Your task to perform on an android device: Toggle the flashlight Image 0: 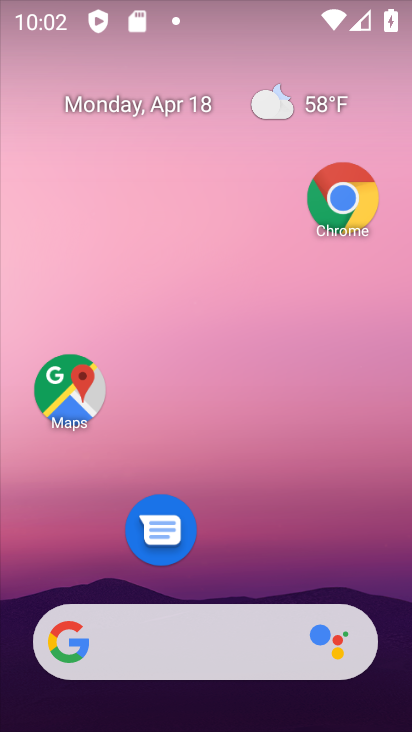
Step 0: drag from (194, 587) to (276, 107)
Your task to perform on an android device: Toggle the flashlight Image 1: 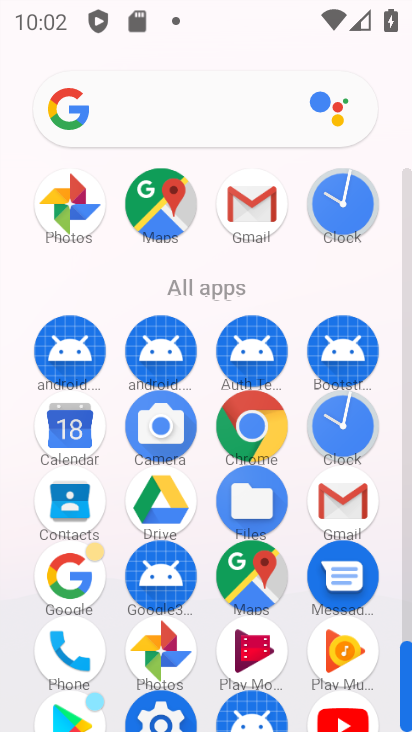
Step 1: drag from (297, 602) to (376, 310)
Your task to perform on an android device: Toggle the flashlight Image 2: 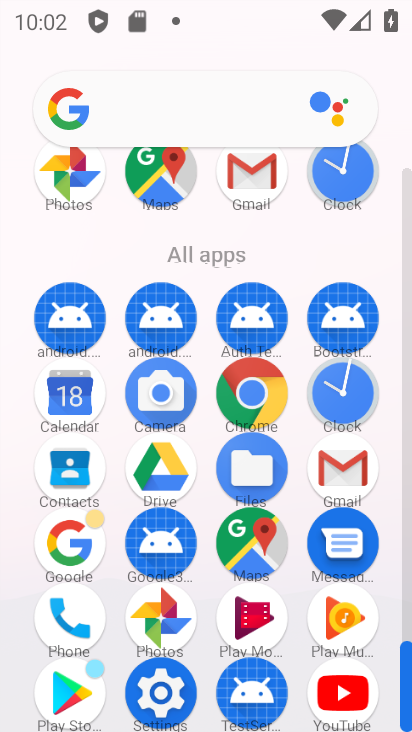
Step 2: click (159, 673)
Your task to perform on an android device: Toggle the flashlight Image 3: 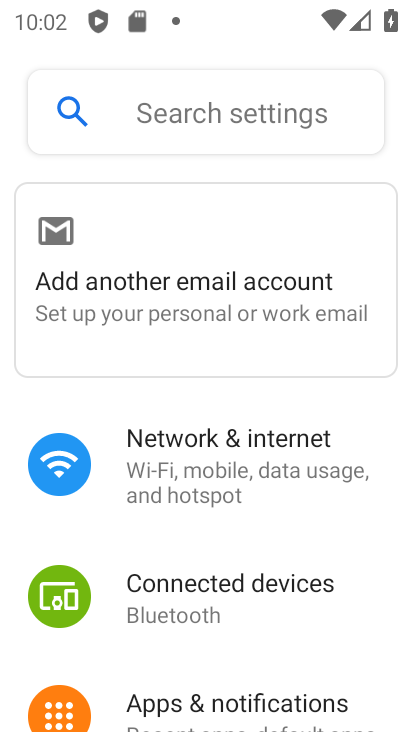
Step 3: drag from (208, 644) to (285, 321)
Your task to perform on an android device: Toggle the flashlight Image 4: 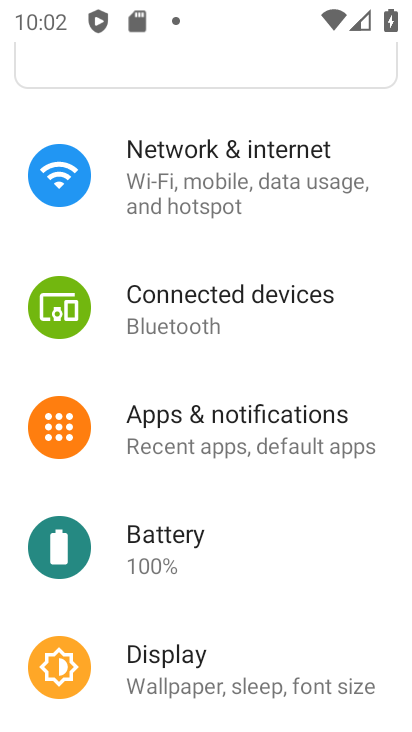
Step 4: drag from (249, 640) to (272, 438)
Your task to perform on an android device: Toggle the flashlight Image 5: 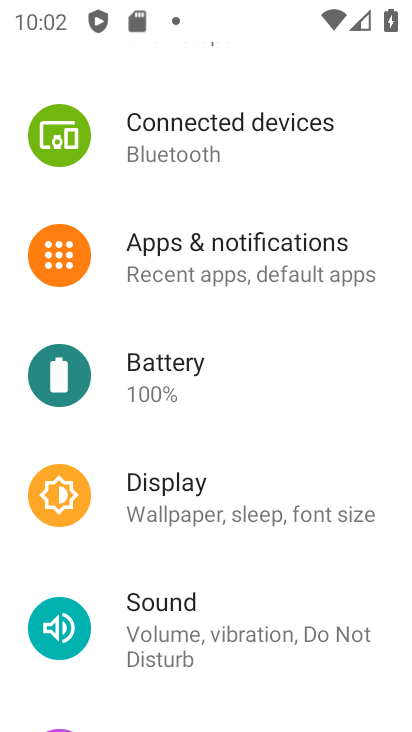
Step 5: drag from (277, 620) to (303, 453)
Your task to perform on an android device: Toggle the flashlight Image 6: 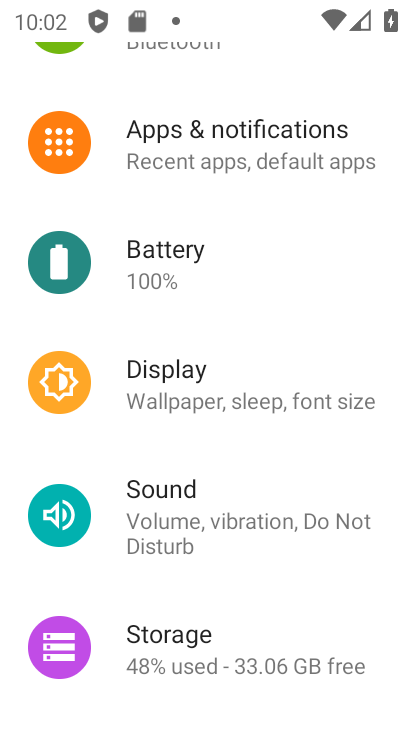
Step 6: click (263, 390)
Your task to perform on an android device: Toggle the flashlight Image 7: 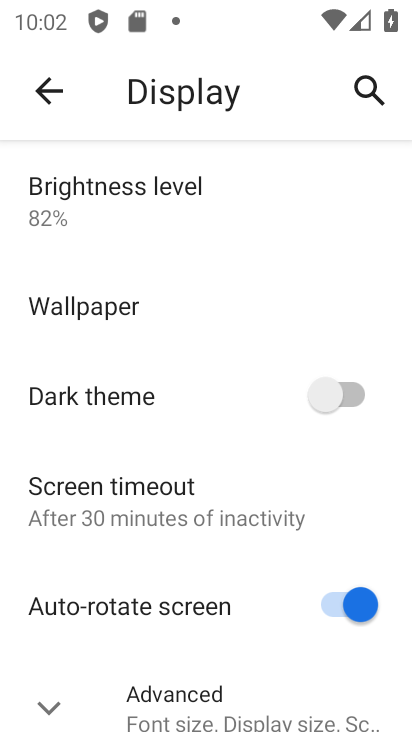
Step 7: task complete